Your task to perform on an android device: change notification settings in the gmail app Image 0: 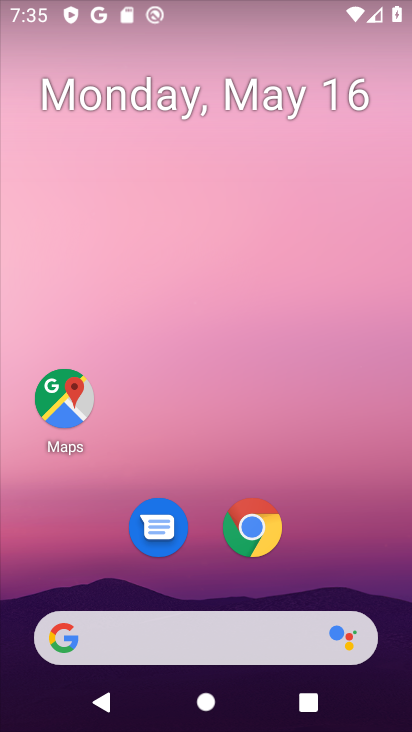
Step 0: drag from (323, 578) to (314, 266)
Your task to perform on an android device: change notification settings in the gmail app Image 1: 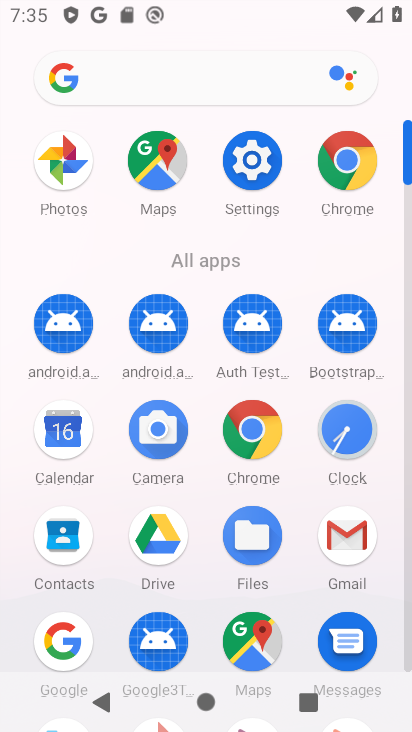
Step 1: click (350, 539)
Your task to perform on an android device: change notification settings in the gmail app Image 2: 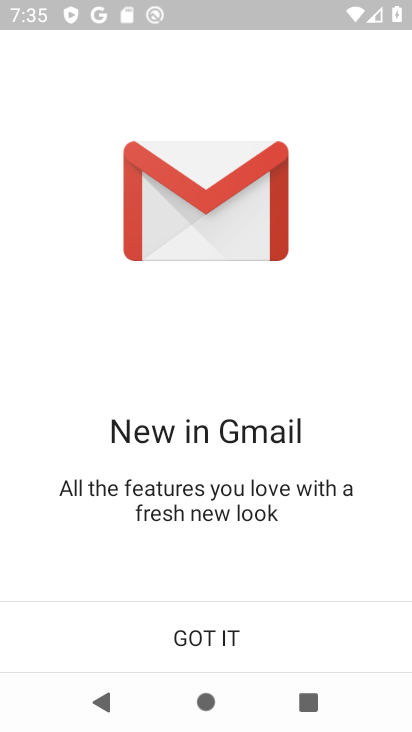
Step 2: click (244, 634)
Your task to perform on an android device: change notification settings in the gmail app Image 3: 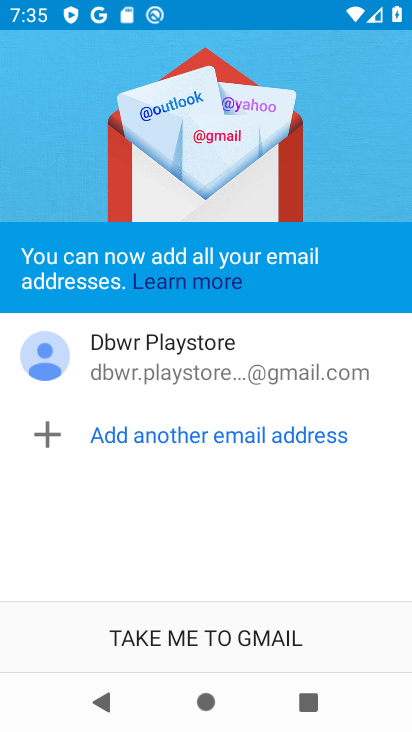
Step 3: click (245, 620)
Your task to perform on an android device: change notification settings in the gmail app Image 4: 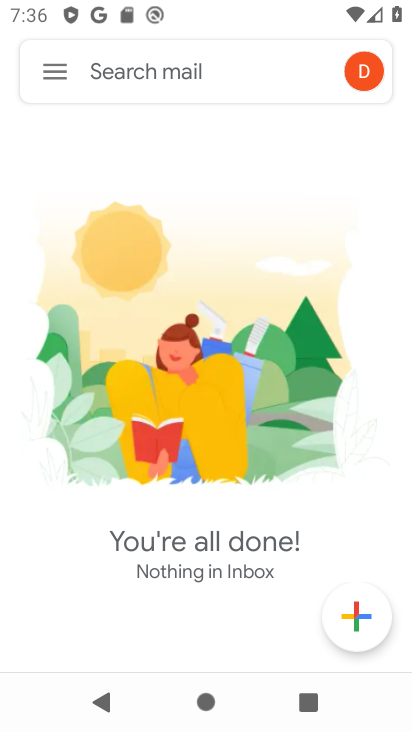
Step 4: click (57, 68)
Your task to perform on an android device: change notification settings in the gmail app Image 5: 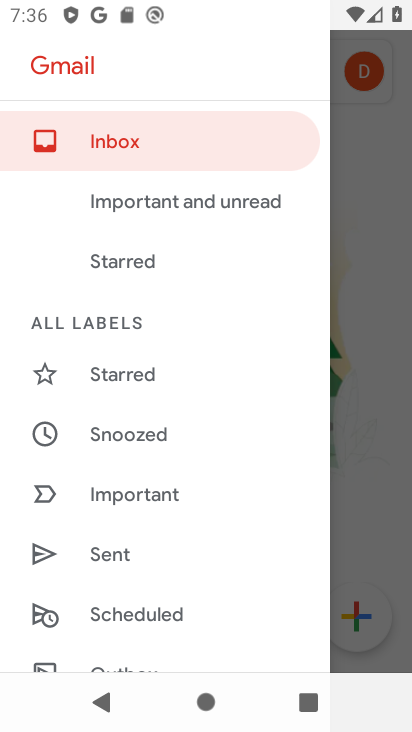
Step 5: drag from (173, 594) to (224, 313)
Your task to perform on an android device: change notification settings in the gmail app Image 6: 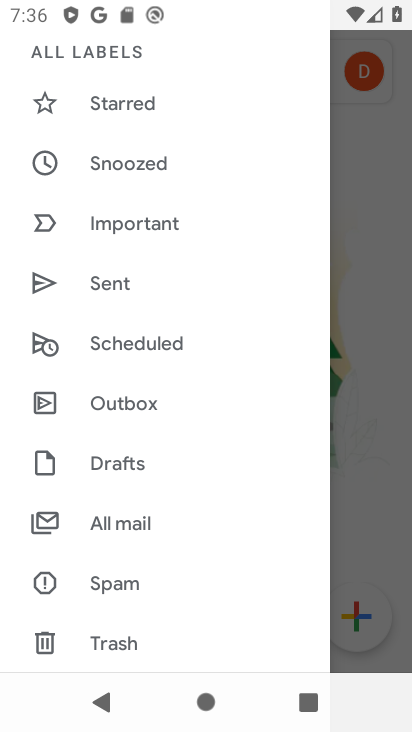
Step 6: drag from (117, 611) to (167, 334)
Your task to perform on an android device: change notification settings in the gmail app Image 7: 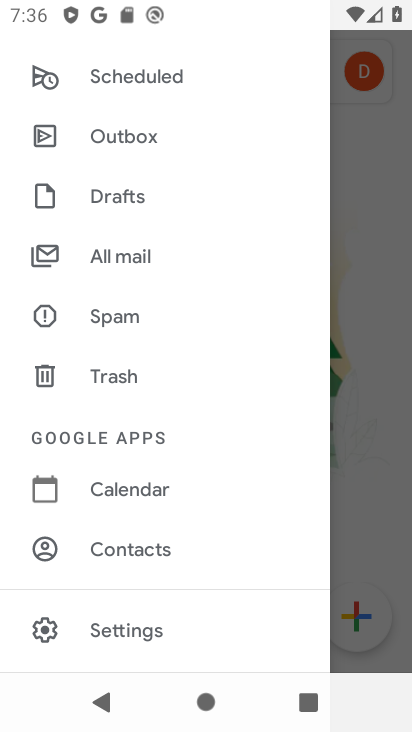
Step 7: click (113, 634)
Your task to perform on an android device: change notification settings in the gmail app Image 8: 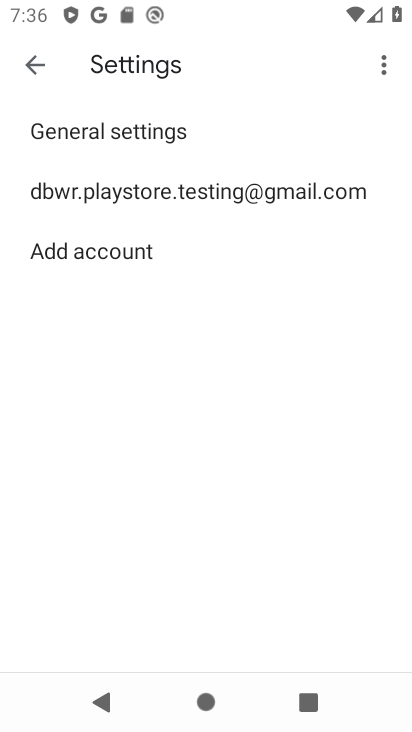
Step 8: click (227, 187)
Your task to perform on an android device: change notification settings in the gmail app Image 9: 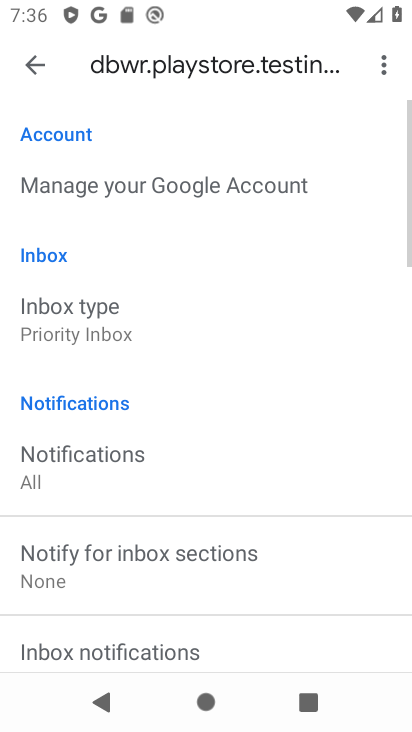
Step 9: drag from (136, 585) to (180, 411)
Your task to perform on an android device: change notification settings in the gmail app Image 10: 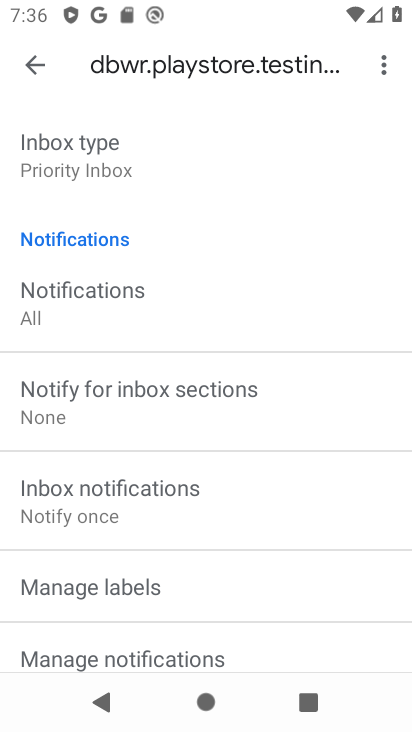
Step 10: click (51, 301)
Your task to perform on an android device: change notification settings in the gmail app Image 11: 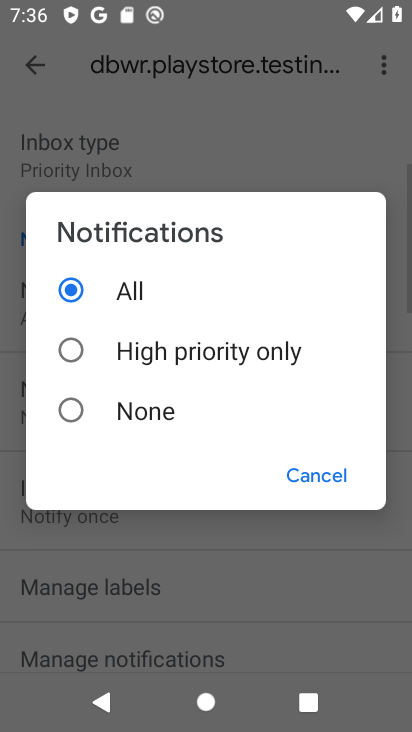
Step 11: click (117, 423)
Your task to perform on an android device: change notification settings in the gmail app Image 12: 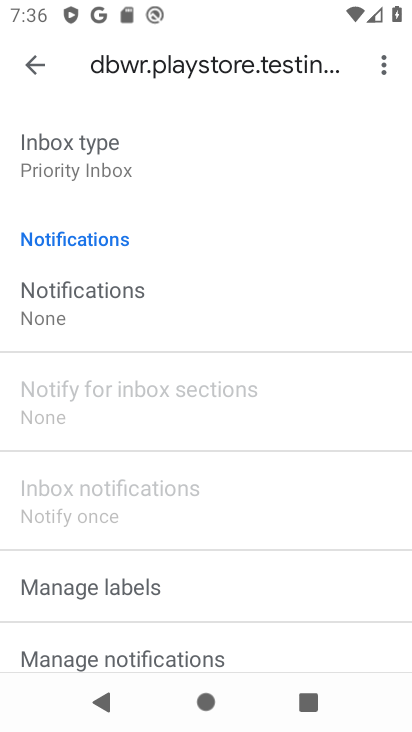
Step 12: task complete